Your task to perform on an android device: check data usage Image 0: 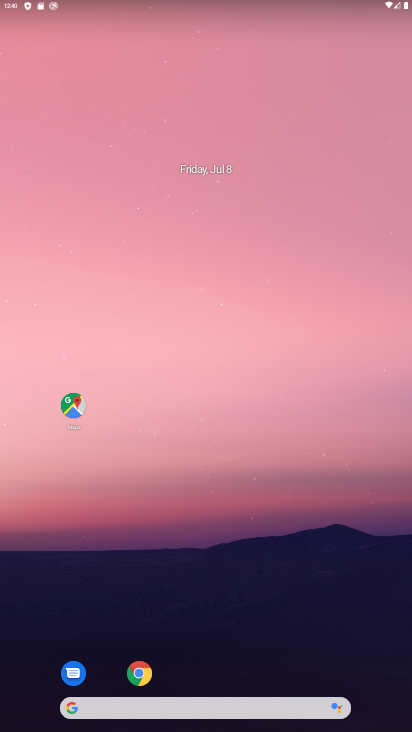
Step 0: drag from (225, 673) to (255, 43)
Your task to perform on an android device: check data usage Image 1: 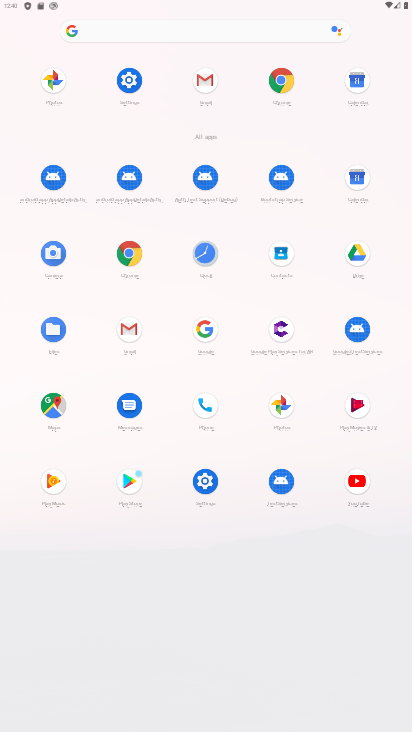
Step 1: click (129, 73)
Your task to perform on an android device: check data usage Image 2: 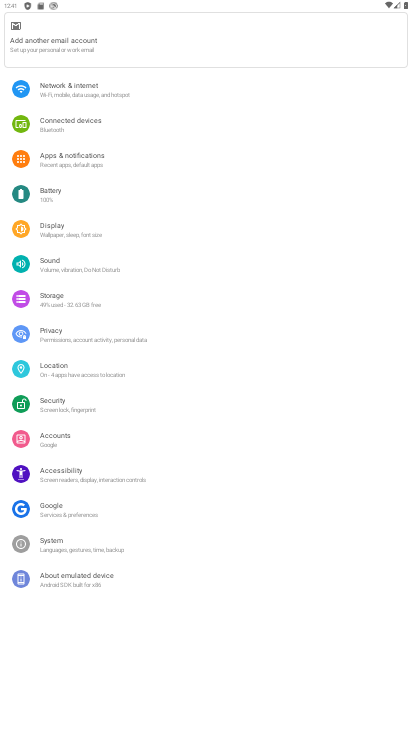
Step 2: click (115, 79)
Your task to perform on an android device: check data usage Image 3: 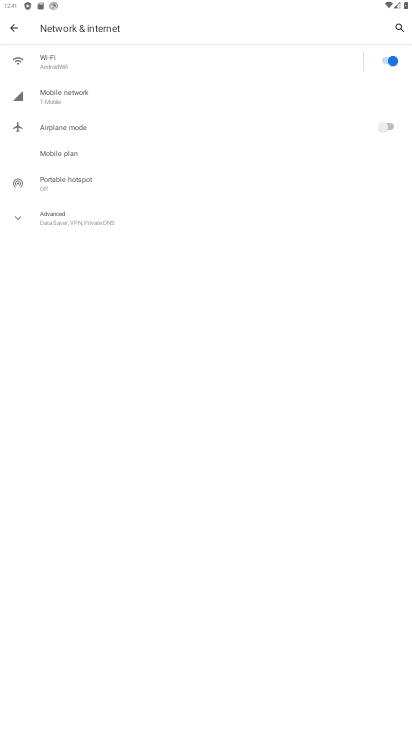
Step 3: click (80, 98)
Your task to perform on an android device: check data usage Image 4: 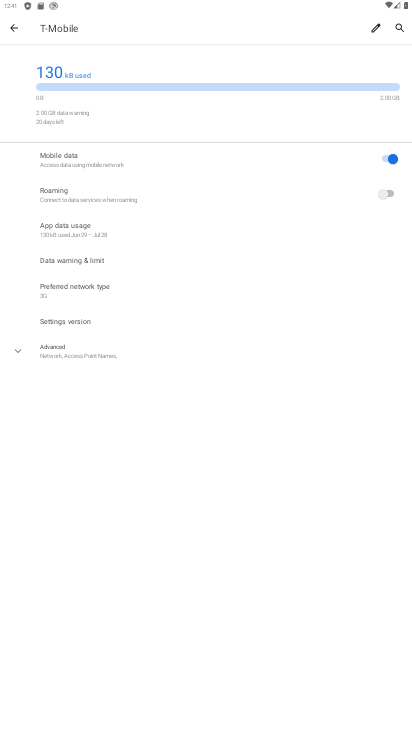
Step 4: click (88, 229)
Your task to perform on an android device: check data usage Image 5: 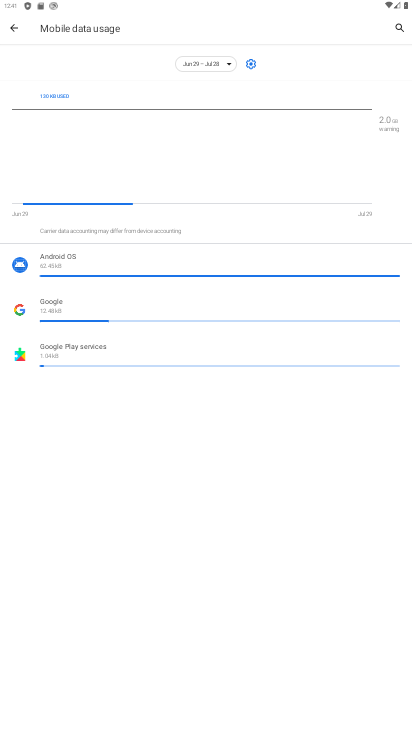
Step 5: task complete